Your task to perform on an android device: Show me the alarms in the clock app Image 0: 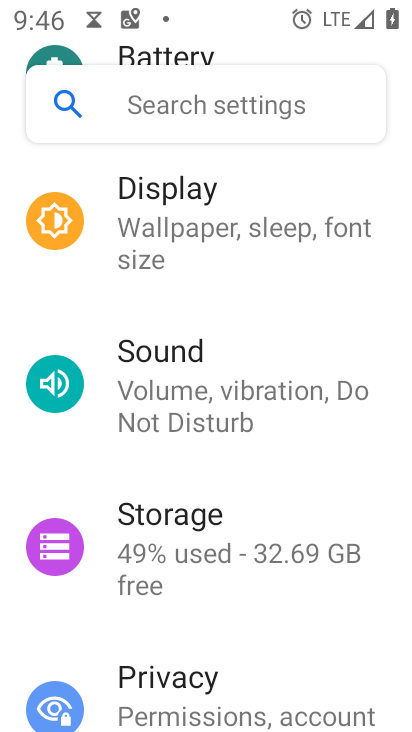
Step 0: press home button
Your task to perform on an android device: Show me the alarms in the clock app Image 1: 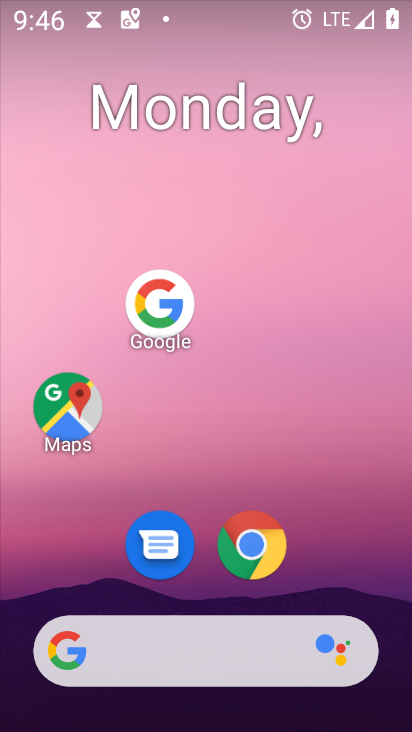
Step 1: drag from (163, 663) to (323, 130)
Your task to perform on an android device: Show me the alarms in the clock app Image 2: 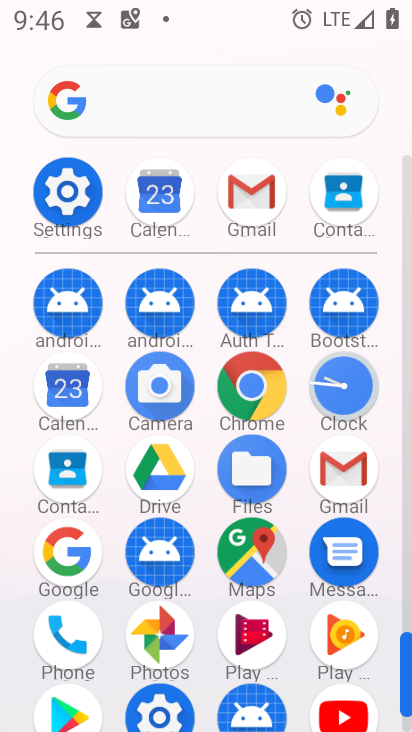
Step 2: click (347, 389)
Your task to perform on an android device: Show me the alarms in the clock app Image 3: 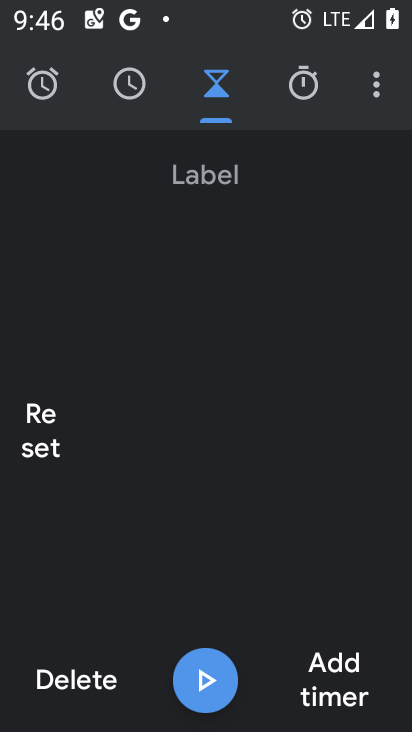
Step 3: click (47, 97)
Your task to perform on an android device: Show me the alarms in the clock app Image 4: 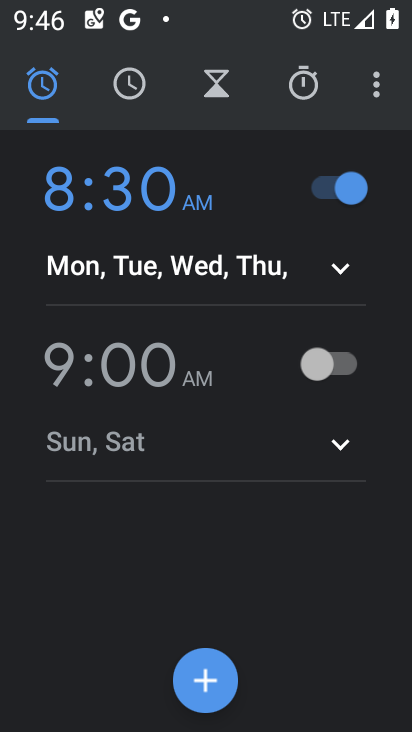
Step 4: task complete